Your task to perform on an android device: change the clock display to analog Image 0: 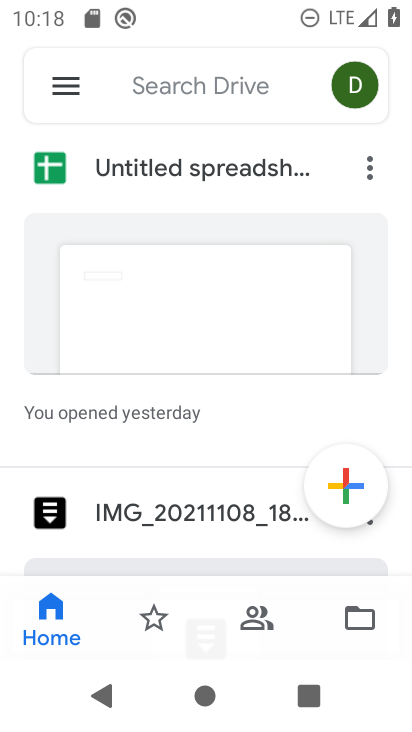
Step 0: press home button
Your task to perform on an android device: change the clock display to analog Image 1: 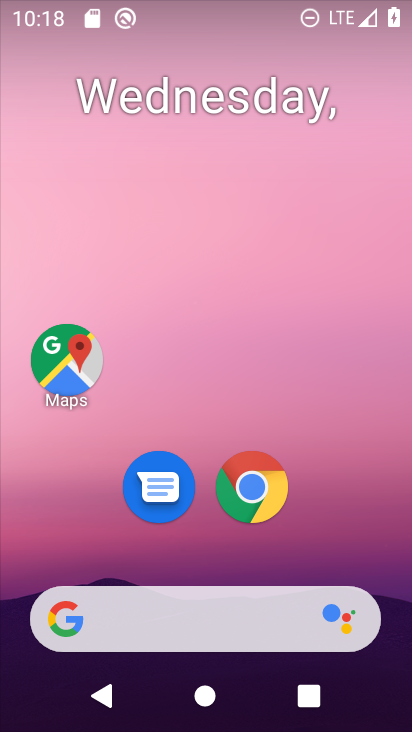
Step 1: drag from (317, 516) to (228, 123)
Your task to perform on an android device: change the clock display to analog Image 2: 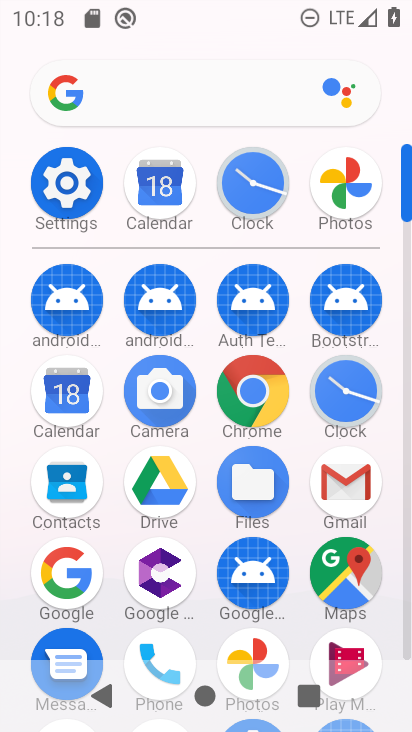
Step 2: click (246, 183)
Your task to perform on an android device: change the clock display to analog Image 3: 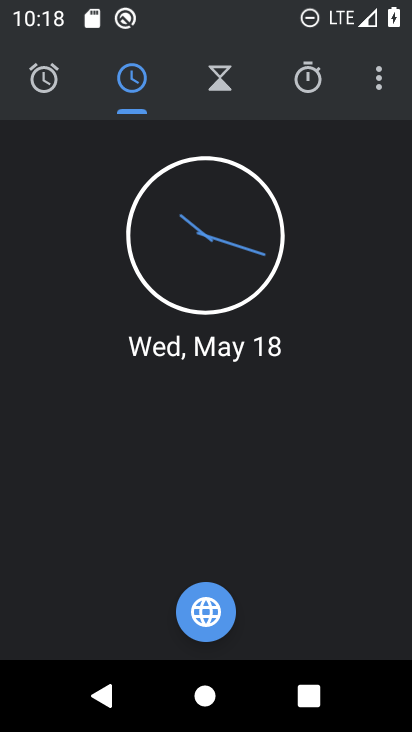
Step 3: click (377, 77)
Your task to perform on an android device: change the clock display to analog Image 4: 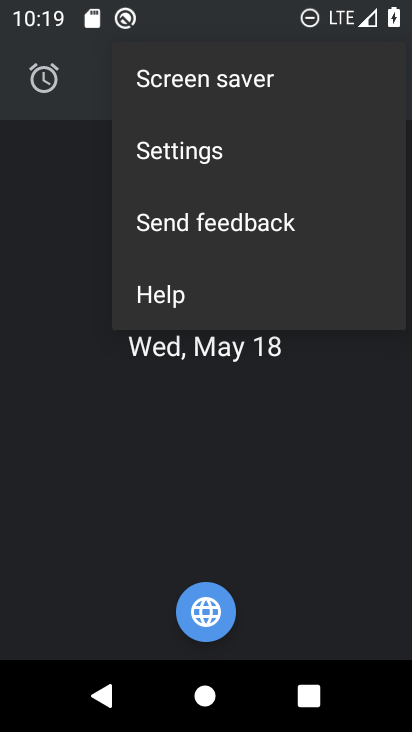
Step 4: click (207, 151)
Your task to perform on an android device: change the clock display to analog Image 5: 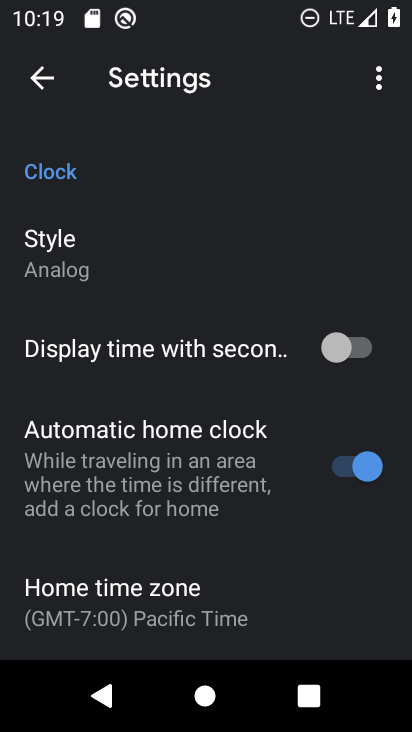
Step 5: click (50, 246)
Your task to perform on an android device: change the clock display to analog Image 6: 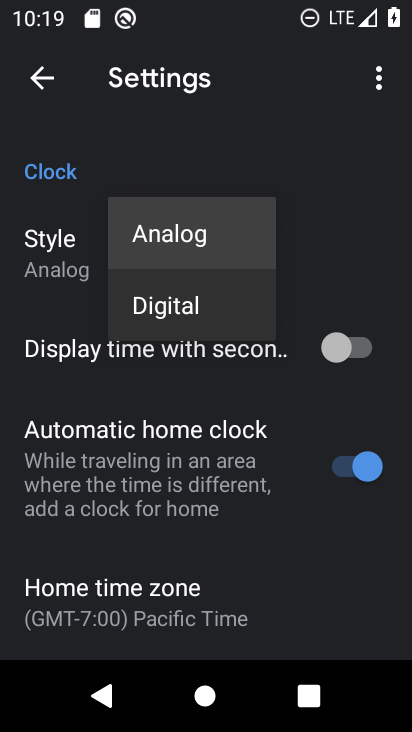
Step 6: click (154, 245)
Your task to perform on an android device: change the clock display to analog Image 7: 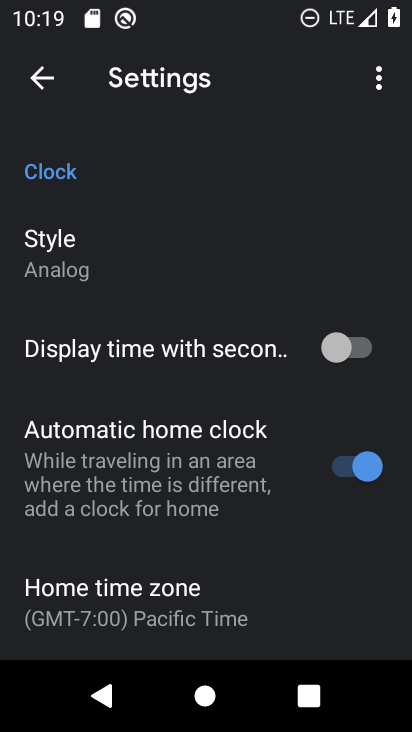
Step 7: task complete